Your task to perform on an android device: show emergency info Image 0: 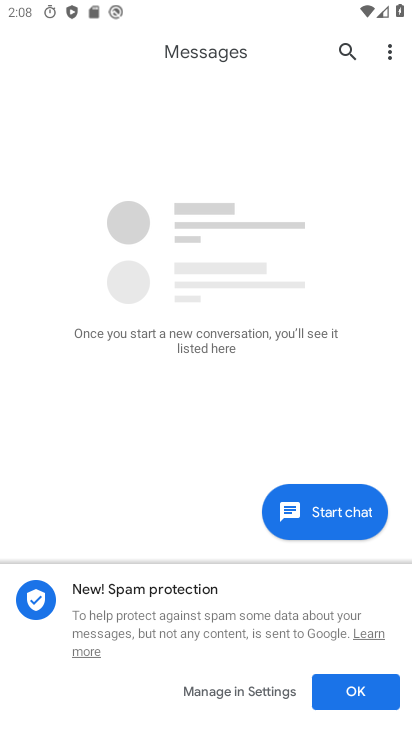
Step 0: press home button
Your task to perform on an android device: show emergency info Image 1: 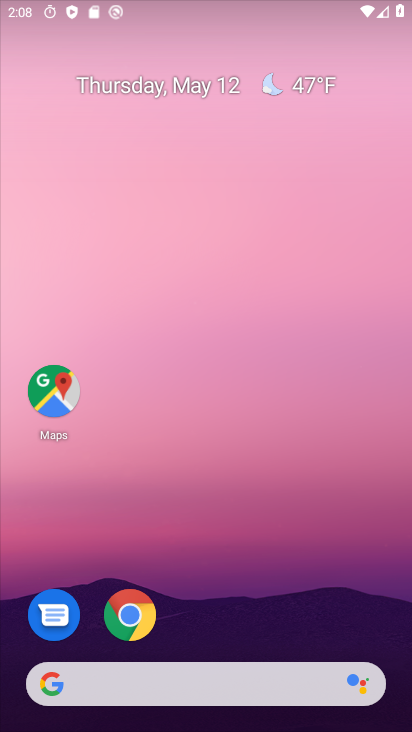
Step 1: drag from (219, 588) to (212, 168)
Your task to perform on an android device: show emergency info Image 2: 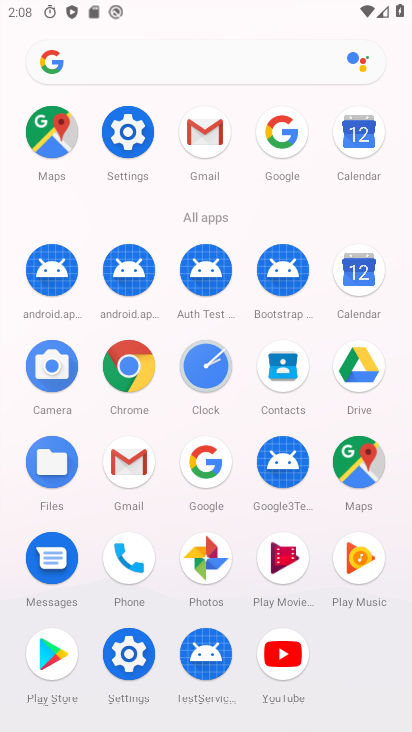
Step 2: click (131, 135)
Your task to perform on an android device: show emergency info Image 3: 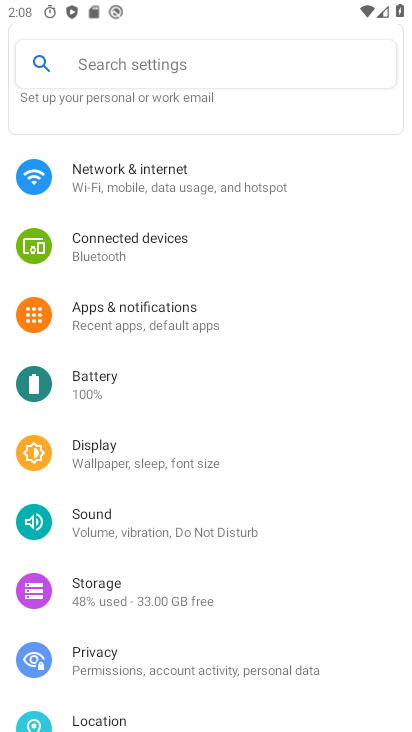
Step 3: drag from (244, 670) to (227, 51)
Your task to perform on an android device: show emergency info Image 4: 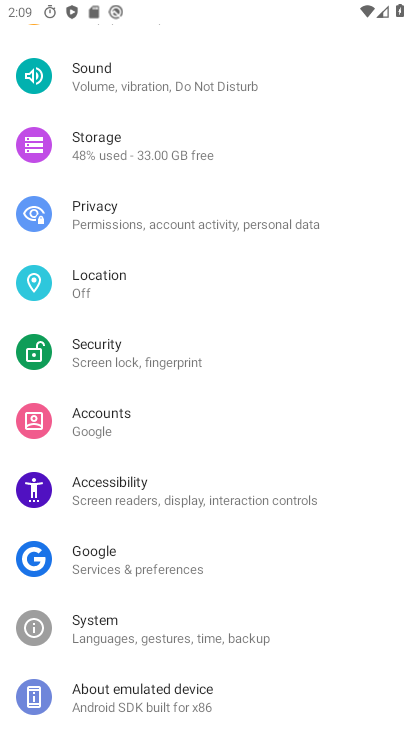
Step 4: click (168, 698)
Your task to perform on an android device: show emergency info Image 5: 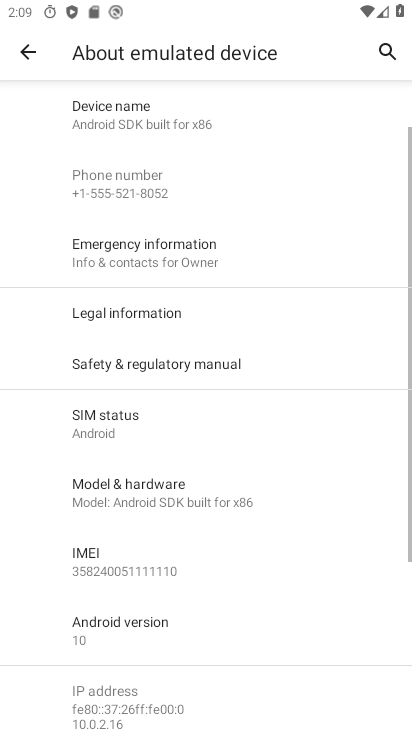
Step 5: click (144, 244)
Your task to perform on an android device: show emergency info Image 6: 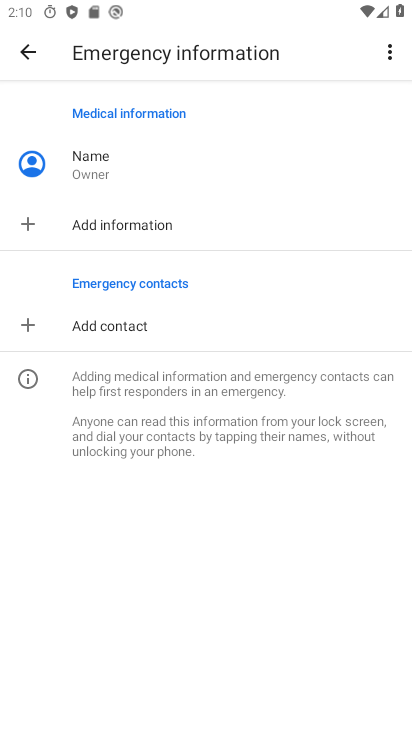
Step 6: task complete